Your task to perform on an android device: Toggle the flashlight Image 0: 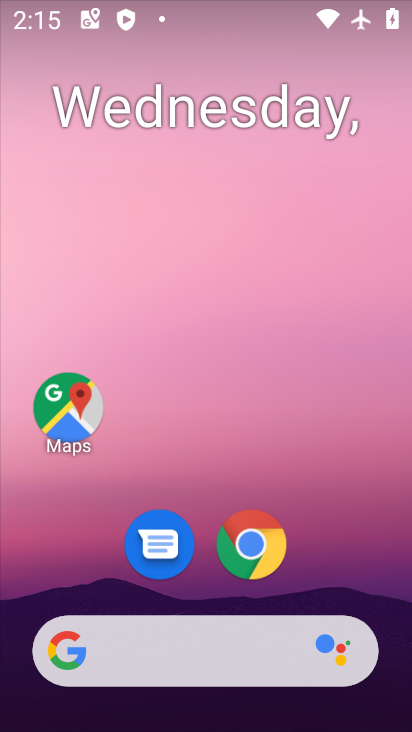
Step 0: drag from (359, 558) to (347, 178)
Your task to perform on an android device: Toggle the flashlight Image 1: 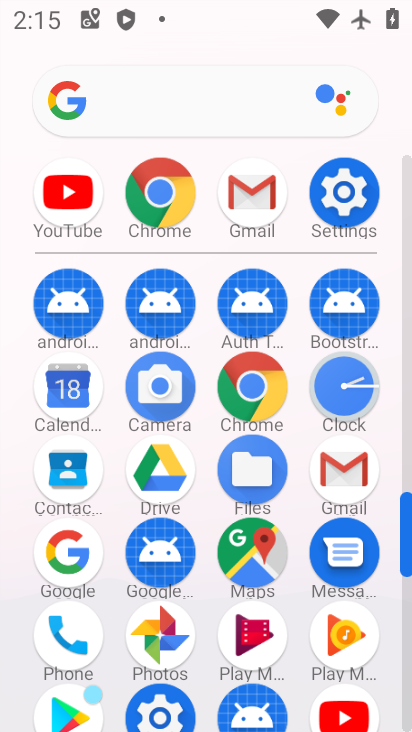
Step 1: click (352, 224)
Your task to perform on an android device: Toggle the flashlight Image 2: 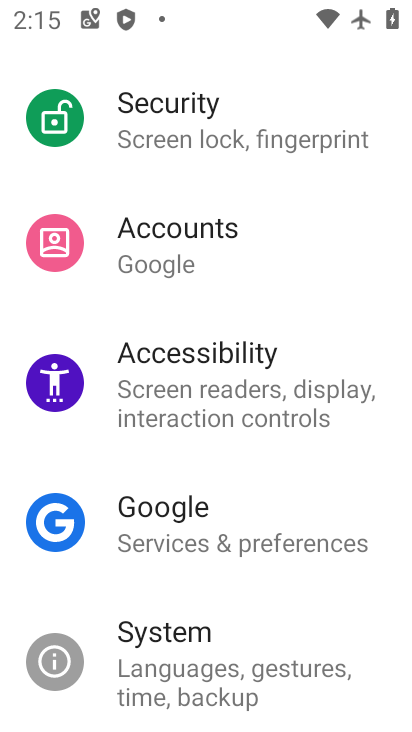
Step 2: click (228, 351)
Your task to perform on an android device: Toggle the flashlight Image 3: 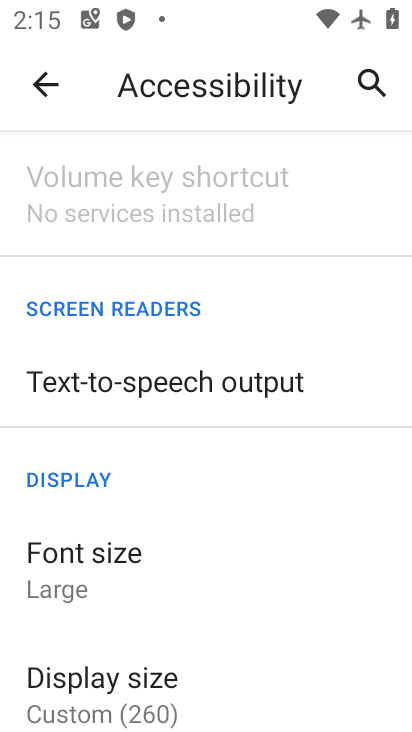
Step 3: task complete